Your task to perform on an android device: Open maps Image 0: 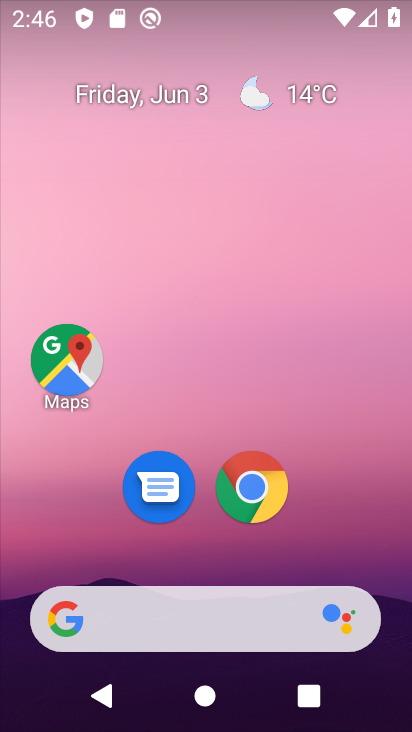
Step 0: click (56, 349)
Your task to perform on an android device: Open maps Image 1: 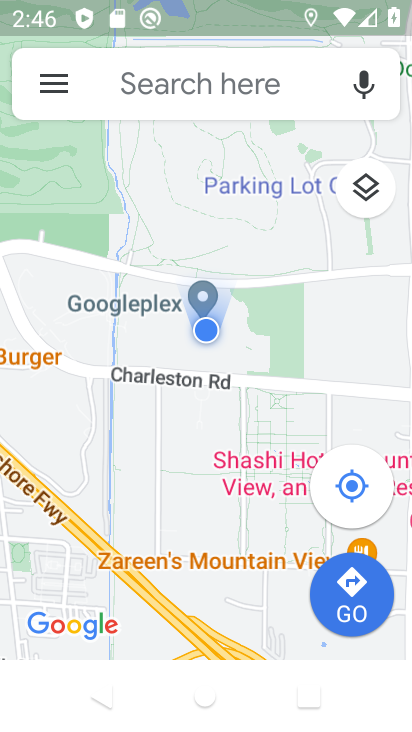
Step 1: task complete